Your task to perform on an android device: toggle improve location accuracy Image 0: 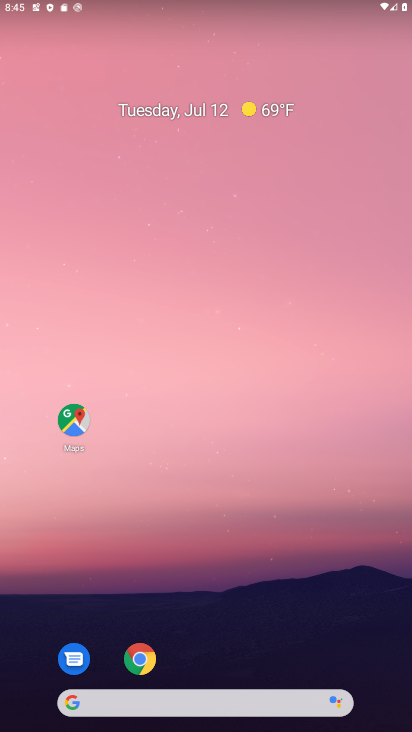
Step 0: drag from (271, 692) to (275, 635)
Your task to perform on an android device: toggle improve location accuracy Image 1: 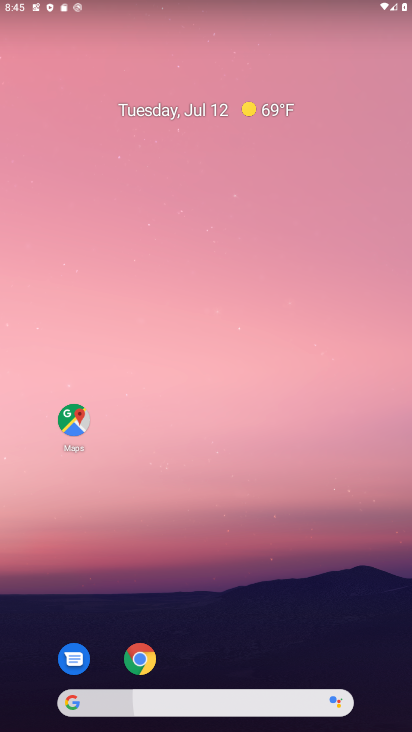
Step 1: drag from (277, 298) to (277, 97)
Your task to perform on an android device: toggle improve location accuracy Image 2: 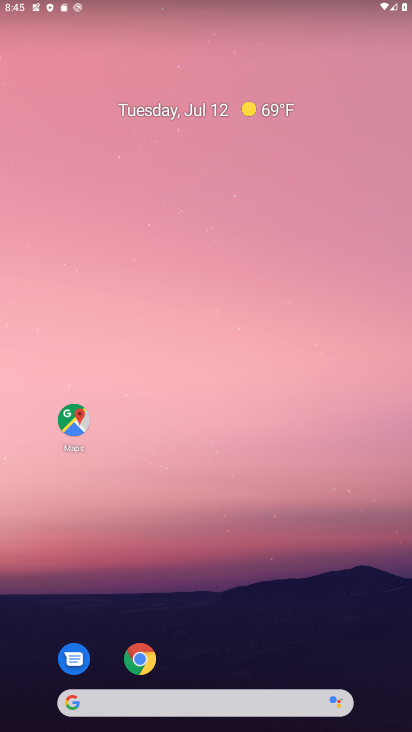
Step 2: drag from (194, 726) to (192, 143)
Your task to perform on an android device: toggle improve location accuracy Image 3: 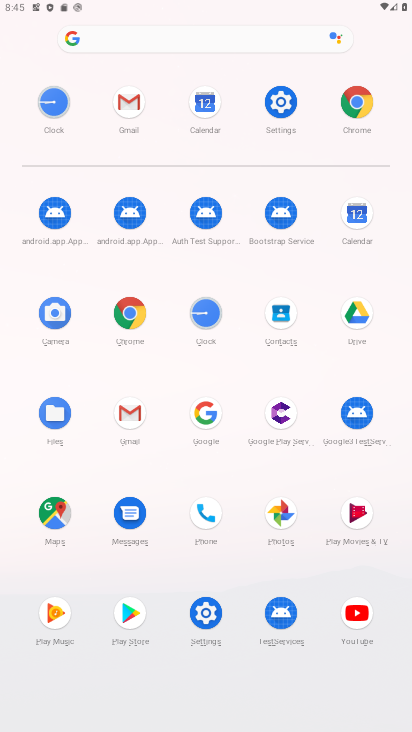
Step 3: click (282, 103)
Your task to perform on an android device: toggle improve location accuracy Image 4: 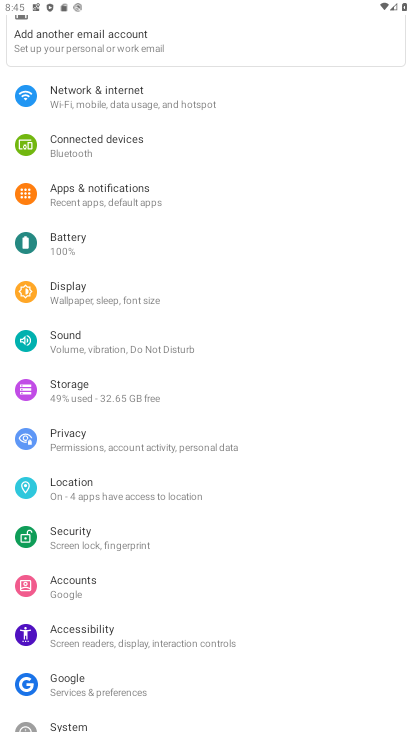
Step 4: click (76, 488)
Your task to perform on an android device: toggle improve location accuracy Image 5: 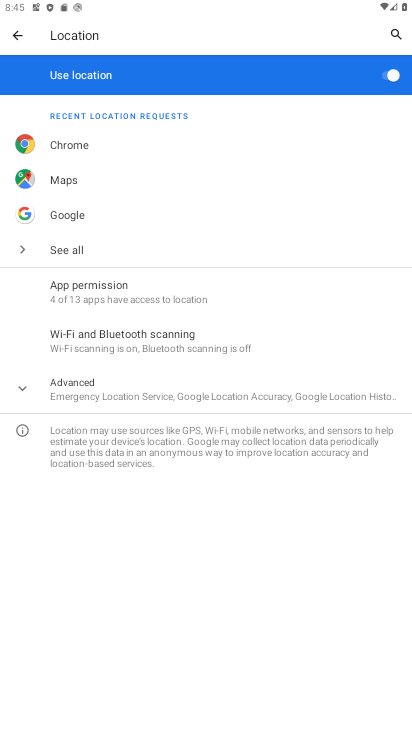
Step 5: click (77, 377)
Your task to perform on an android device: toggle improve location accuracy Image 6: 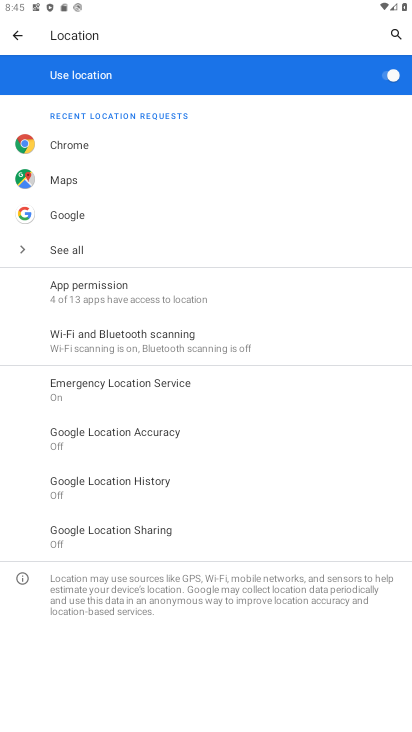
Step 6: click (89, 432)
Your task to perform on an android device: toggle improve location accuracy Image 7: 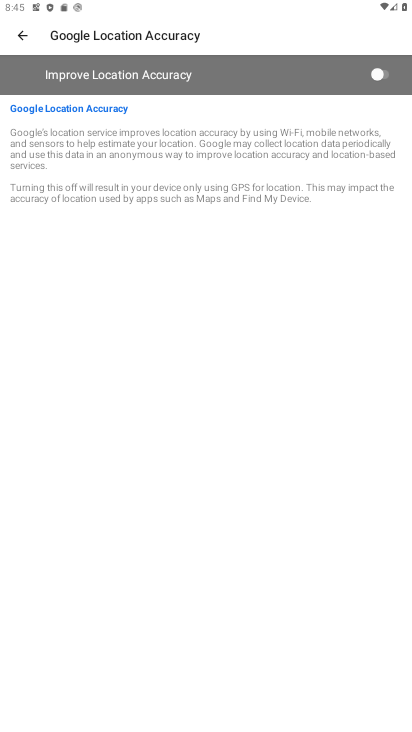
Step 7: click (387, 67)
Your task to perform on an android device: toggle improve location accuracy Image 8: 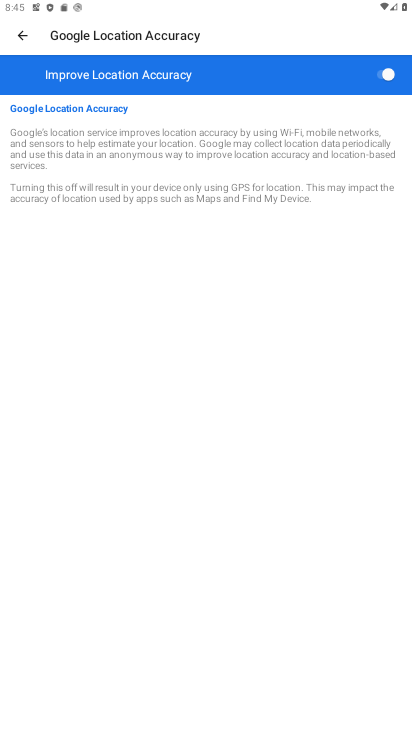
Step 8: task complete